Your task to perform on an android device: What's the weather today? Image 0: 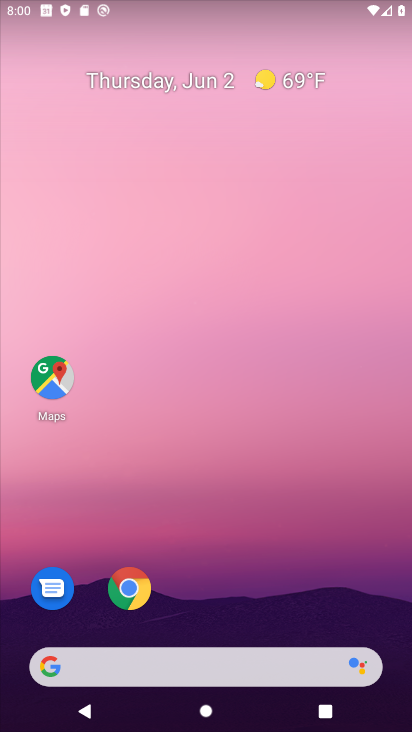
Step 0: click (175, 112)
Your task to perform on an android device: What's the weather today? Image 1: 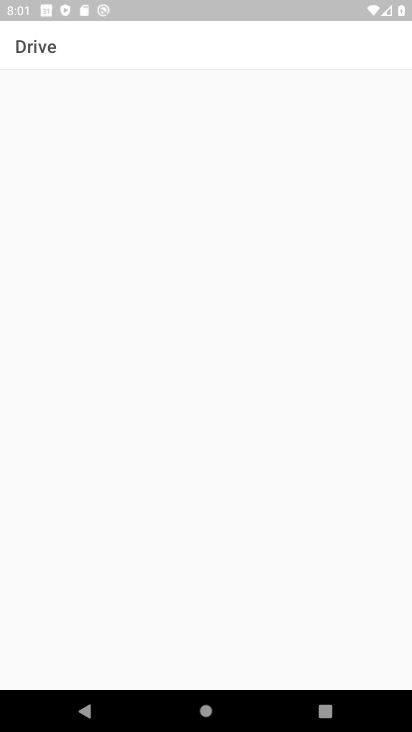
Step 1: press home button
Your task to perform on an android device: What's the weather today? Image 2: 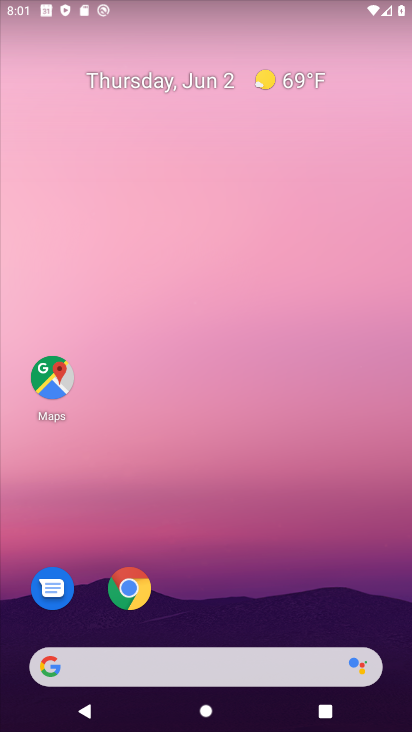
Step 2: drag from (238, 687) to (221, 99)
Your task to perform on an android device: What's the weather today? Image 3: 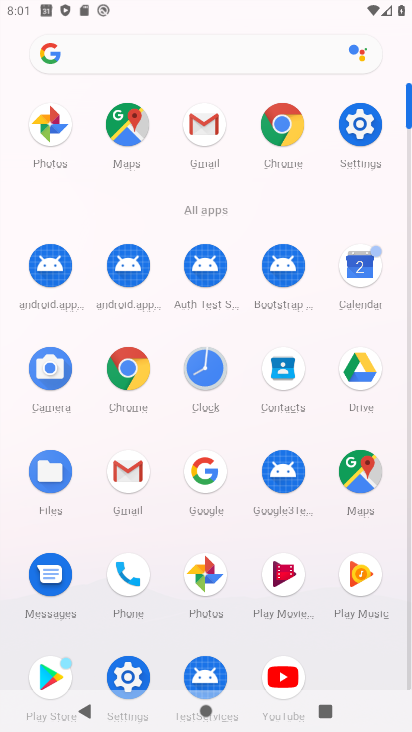
Step 3: click (211, 471)
Your task to perform on an android device: What's the weather today? Image 4: 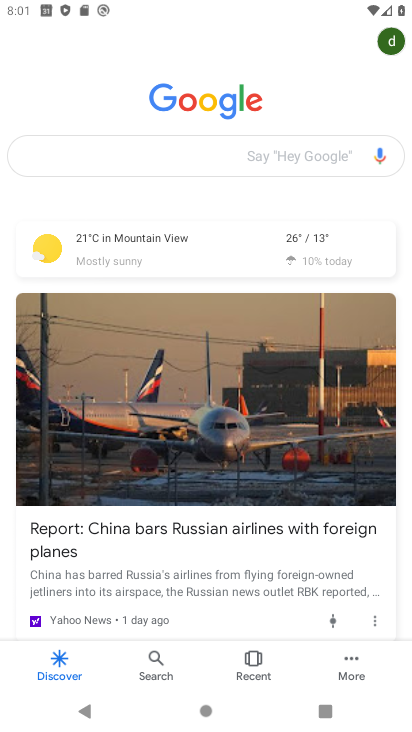
Step 4: click (126, 253)
Your task to perform on an android device: What's the weather today? Image 5: 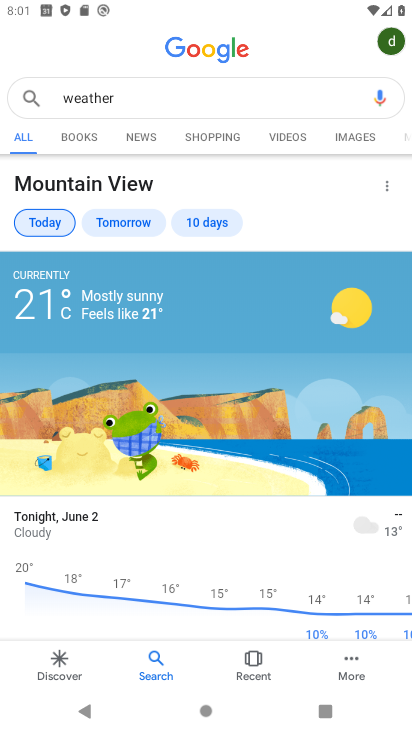
Step 5: click (36, 225)
Your task to perform on an android device: What's the weather today? Image 6: 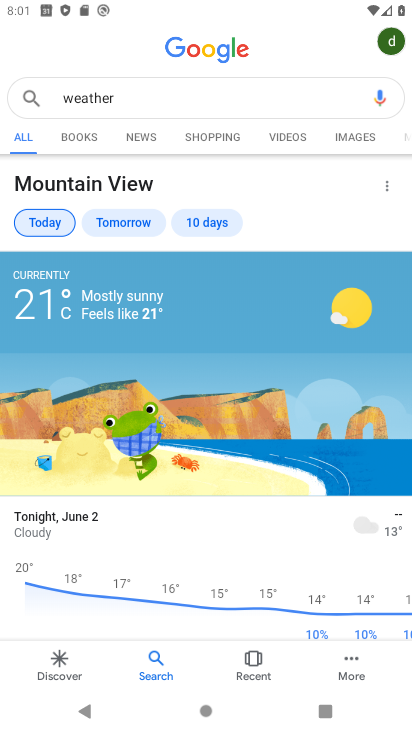
Step 6: click (45, 222)
Your task to perform on an android device: What's the weather today? Image 7: 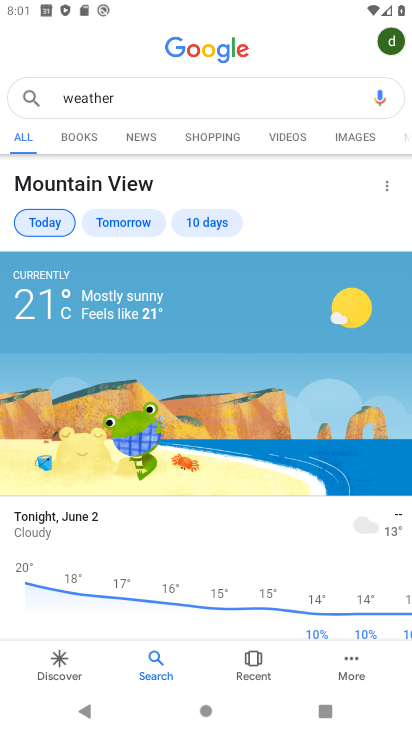
Step 7: click (44, 220)
Your task to perform on an android device: What's the weather today? Image 8: 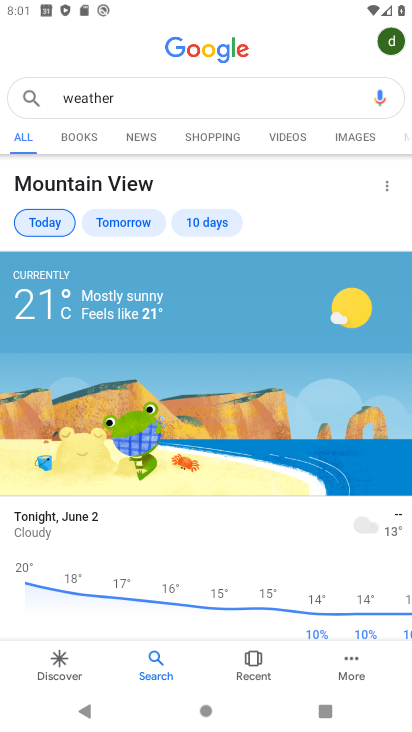
Step 8: task complete